Your task to perform on an android device: change notification settings in the gmail app Image 0: 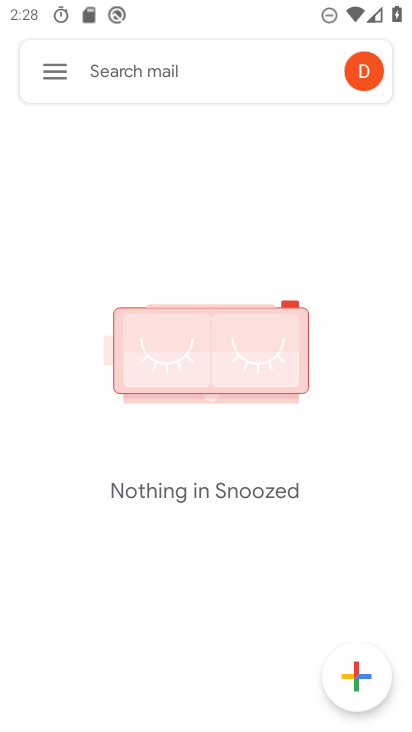
Step 0: click (47, 78)
Your task to perform on an android device: change notification settings in the gmail app Image 1: 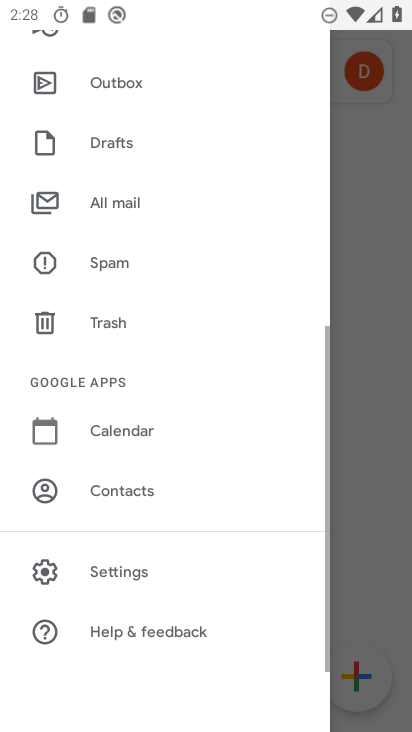
Step 1: click (122, 577)
Your task to perform on an android device: change notification settings in the gmail app Image 2: 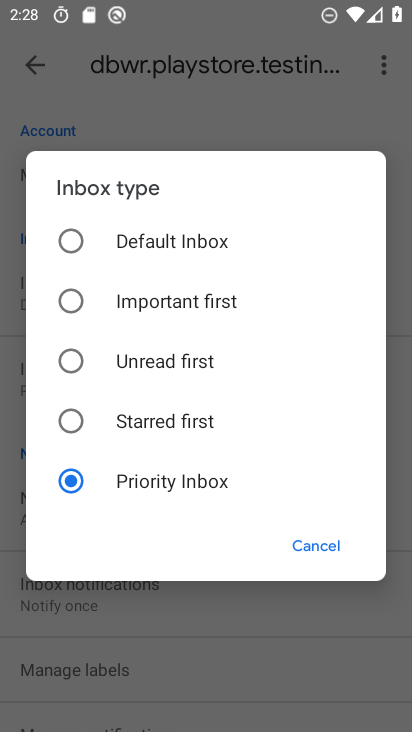
Step 2: click (303, 545)
Your task to perform on an android device: change notification settings in the gmail app Image 3: 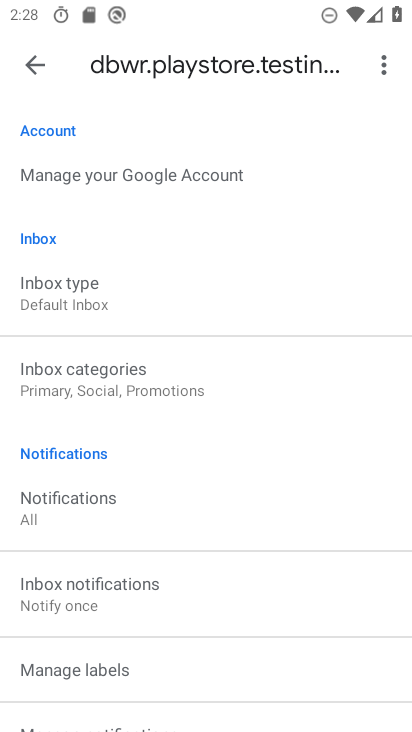
Step 3: drag from (218, 560) to (255, 221)
Your task to perform on an android device: change notification settings in the gmail app Image 4: 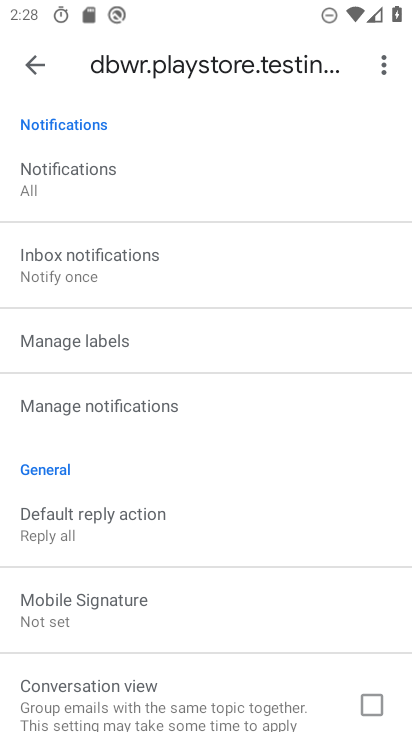
Step 4: click (122, 411)
Your task to perform on an android device: change notification settings in the gmail app Image 5: 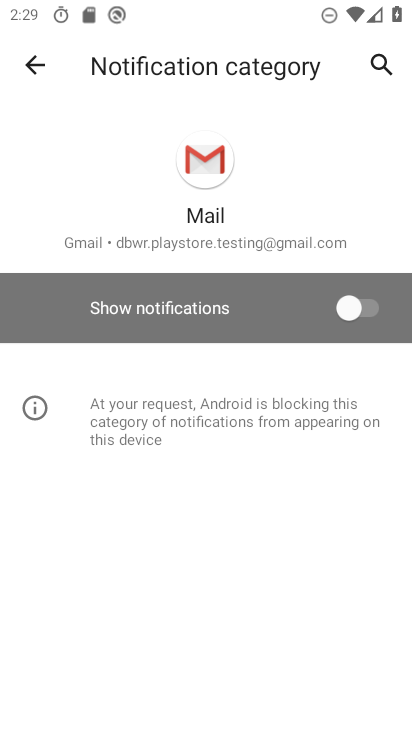
Step 5: click (297, 296)
Your task to perform on an android device: change notification settings in the gmail app Image 6: 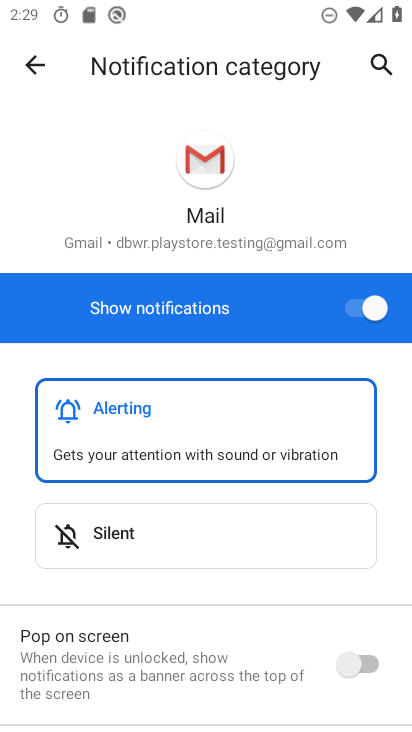
Step 6: task complete